Your task to perform on an android device: toggle location history Image 0: 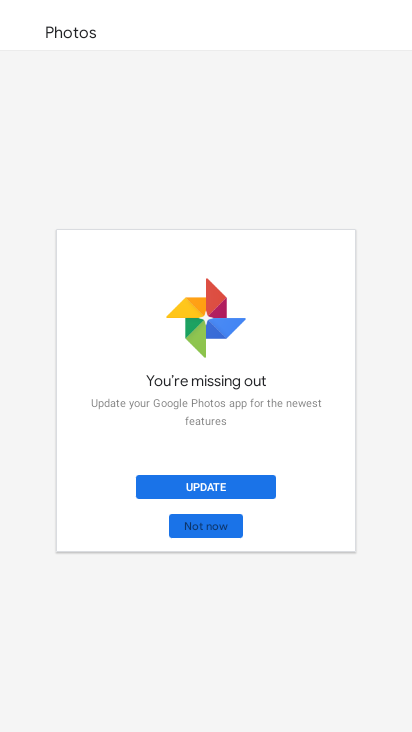
Step 0: press home button
Your task to perform on an android device: toggle location history Image 1: 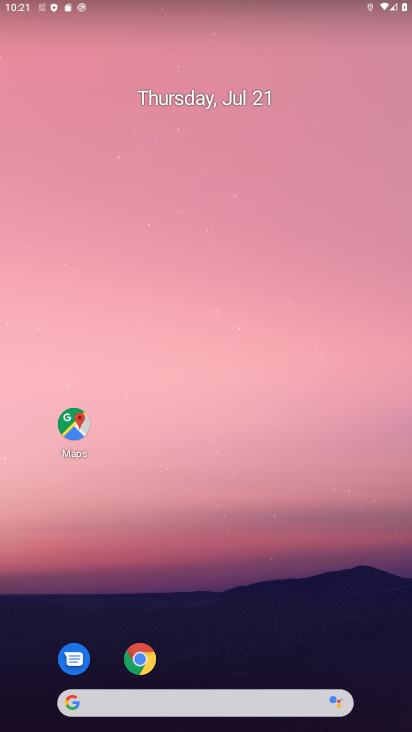
Step 1: drag from (228, 683) to (197, 136)
Your task to perform on an android device: toggle location history Image 2: 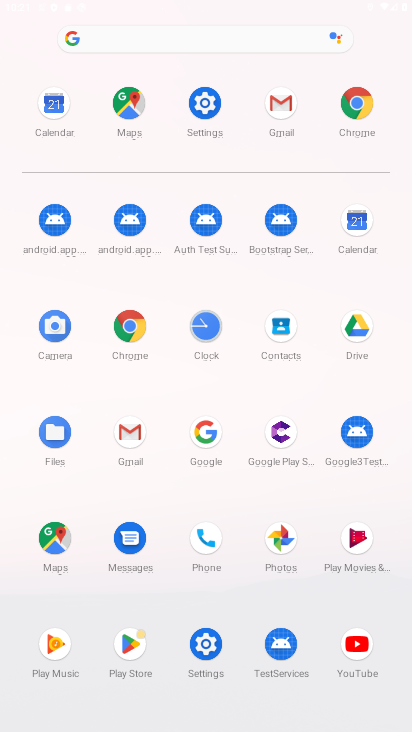
Step 2: click (199, 120)
Your task to perform on an android device: toggle location history Image 3: 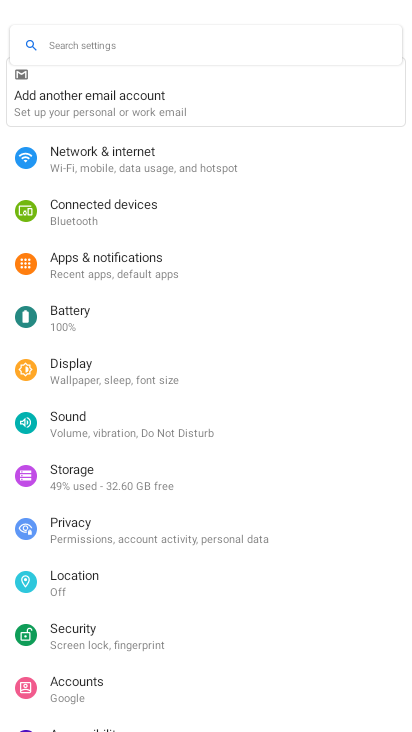
Step 3: click (81, 583)
Your task to perform on an android device: toggle location history Image 4: 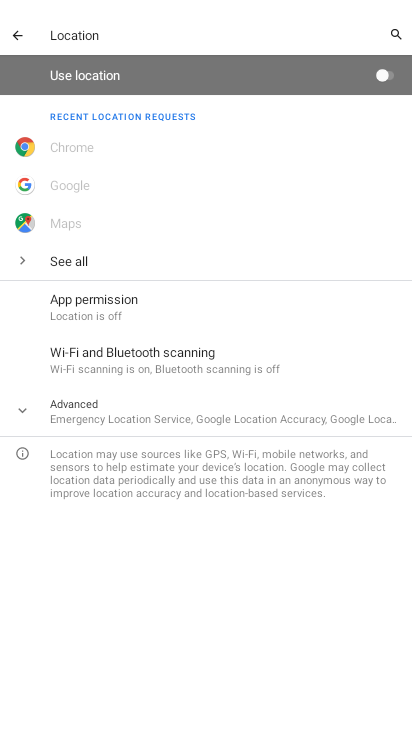
Step 4: click (147, 410)
Your task to perform on an android device: toggle location history Image 5: 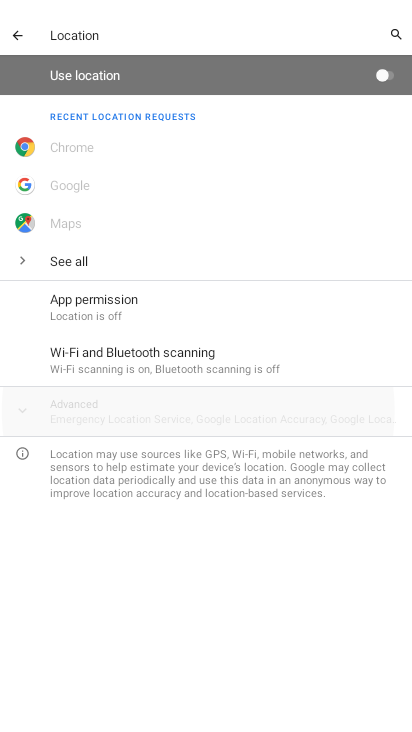
Step 5: click (147, 410)
Your task to perform on an android device: toggle location history Image 6: 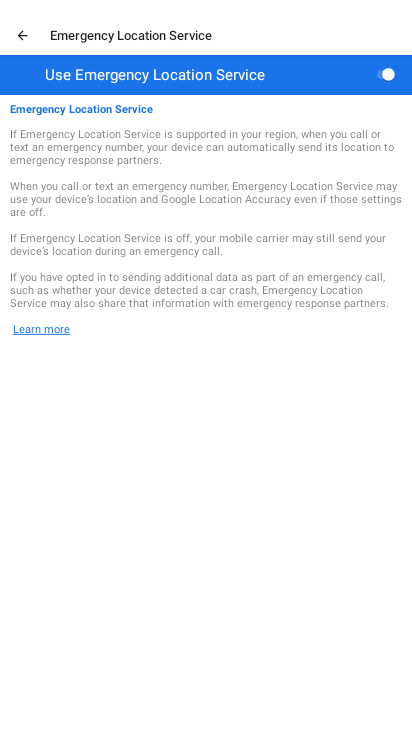
Step 6: click (385, 74)
Your task to perform on an android device: toggle location history Image 7: 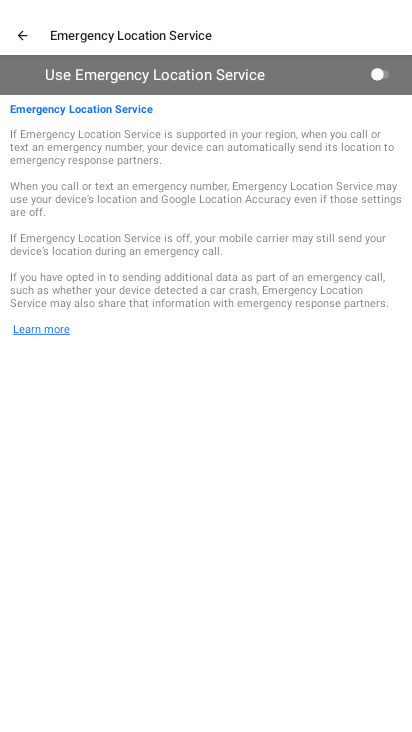
Step 7: task complete